Your task to perform on an android device: Go to location settings Image 0: 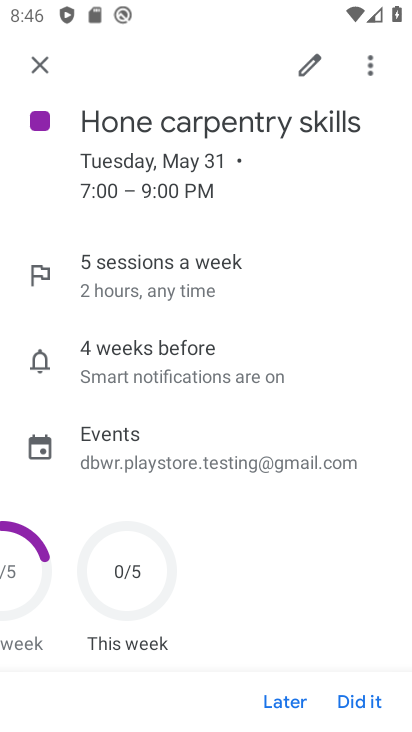
Step 0: press back button
Your task to perform on an android device: Go to location settings Image 1: 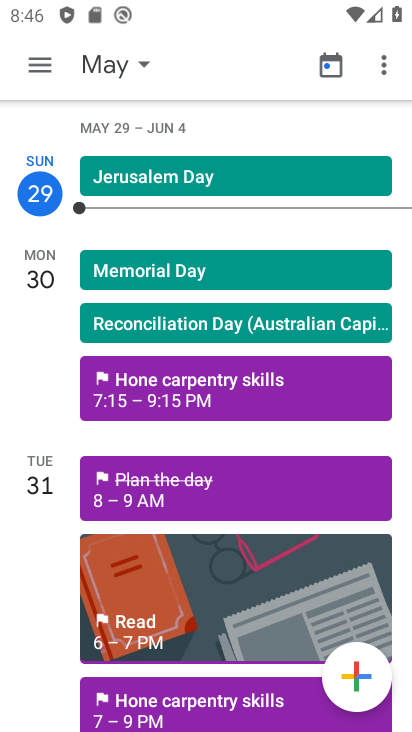
Step 1: press back button
Your task to perform on an android device: Go to location settings Image 2: 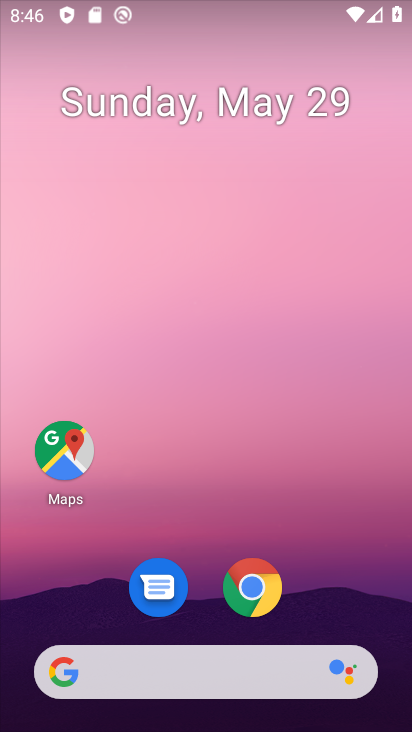
Step 2: drag from (183, 552) to (242, 16)
Your task to perform on an android device: Go to location settings Image 3: 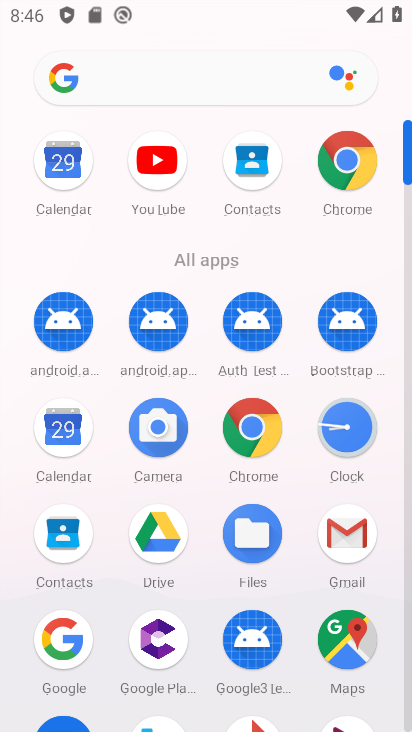
Step 3: drag from (191, 631) to (275, 81)
Your task to perform on an android device: Go to location settings Image 4: 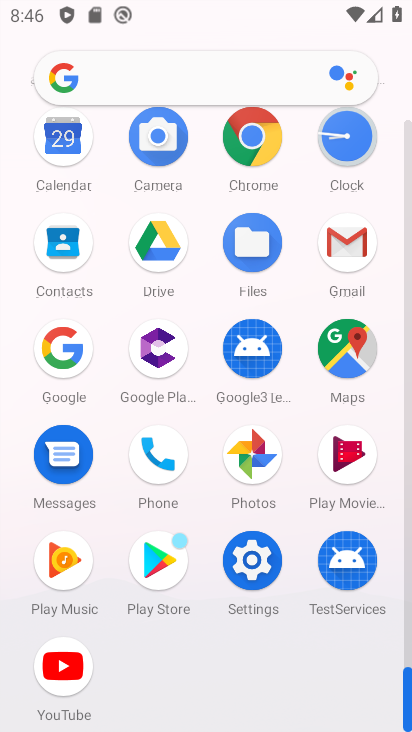
Step 4: click (245, 554)
Your task to perform on an android device: Go to location settings Image 5: 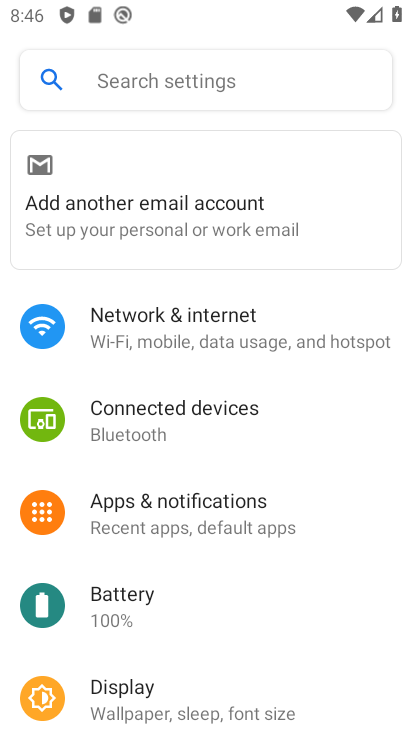
Step 5: drag from (254, 683) to (294, 114)
Your task to perform on an android device: Go to location settings Image 6: 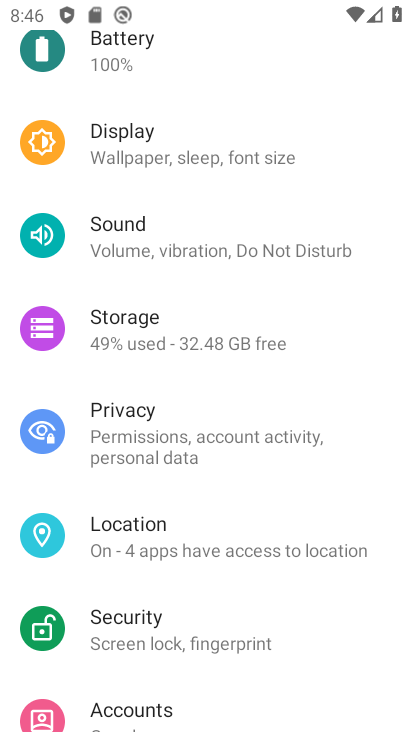
Step 6: click (135, 551)
Your task to perform on an android device: Go to location settings Image 7: 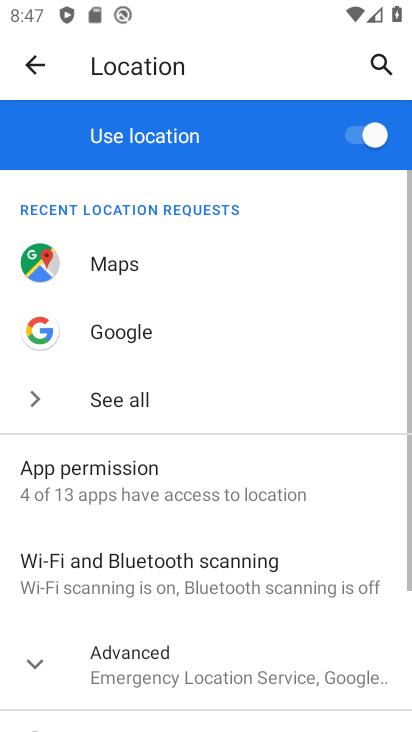
Step 7: task complete